Your task to perform on an android device: change the clock display to show seconds Image 0: 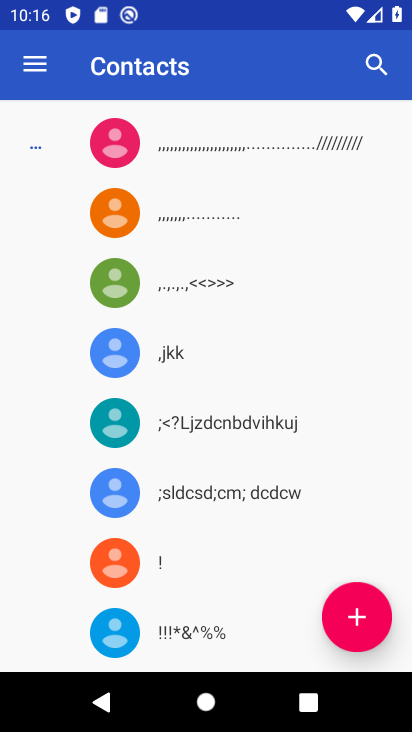
Step 0: press home button
Your task to perform on an android device: change the clock display to show seconds Image 1: 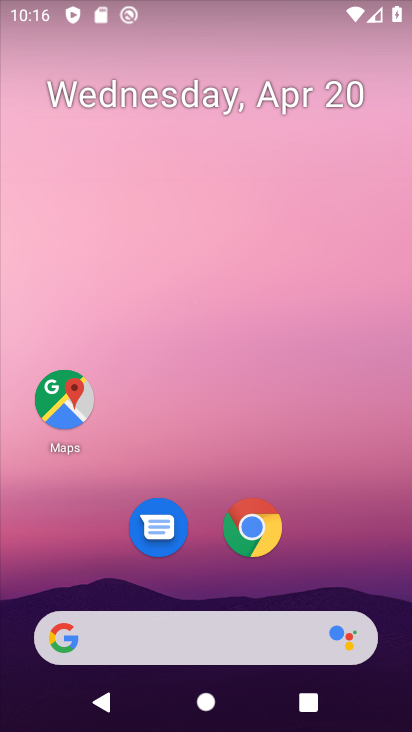
Step 1: drag from (202, 584) to (251, 4)
Your task to perform on an android device: change the clock display to show seconds Image 2: 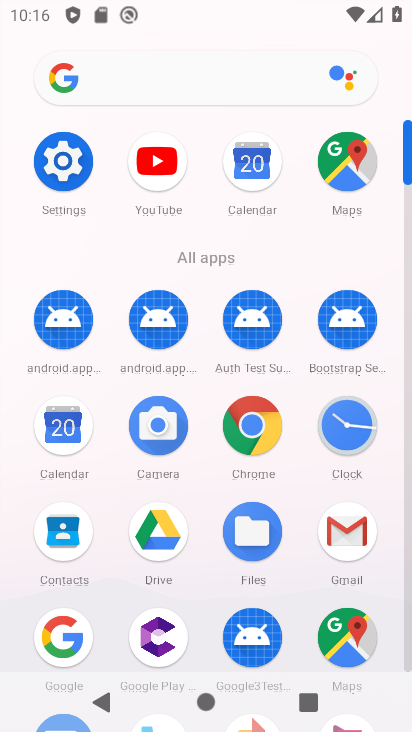
Step 2: click (349, 432)
Your task to perform on an android device: change the clock display to show seconds Image 3: 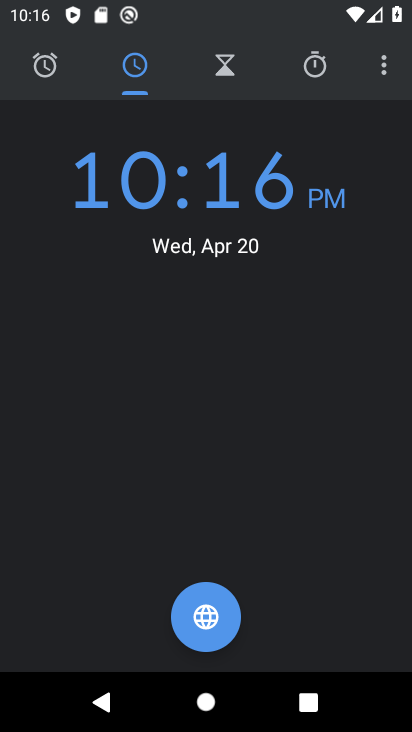
Step 3: click (385, 69)
Your task to perform on an android device: change the clock display to show seconds Image 4: 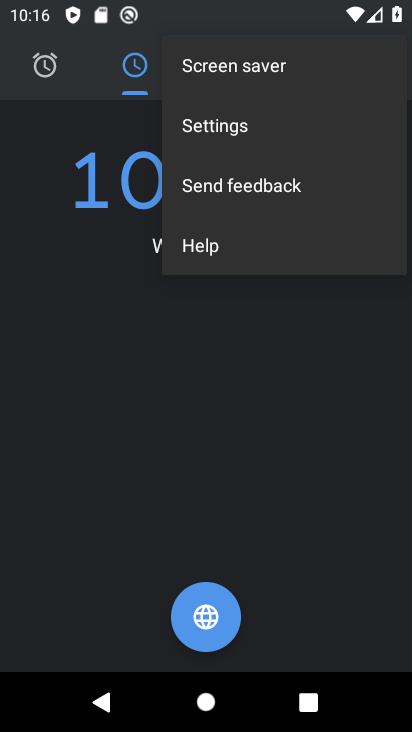
Step 4: click (228, 131)
Your task to perform on an android device: change the clock display to show seconds Image 5: 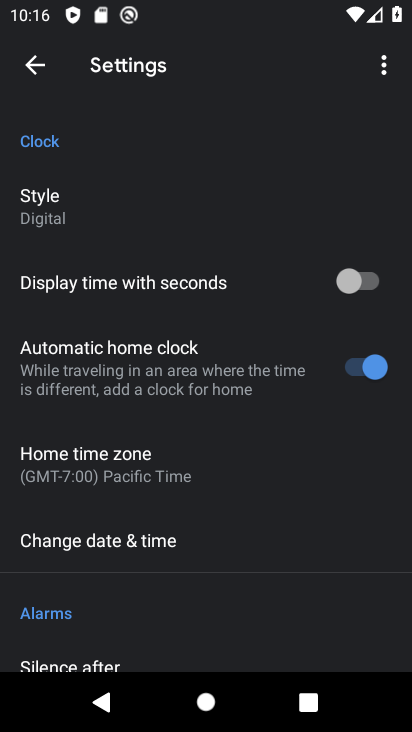
Step 5: click (51, 204)
Your task to perform on an android device: change the clock display to show seconds Image 6: 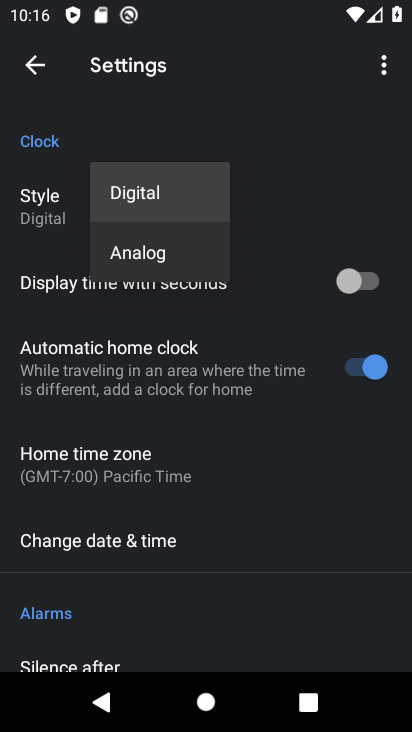
Step 6: click (130, 262)
Your task to perform on an android device: change the clock display to show seconds Image 7: 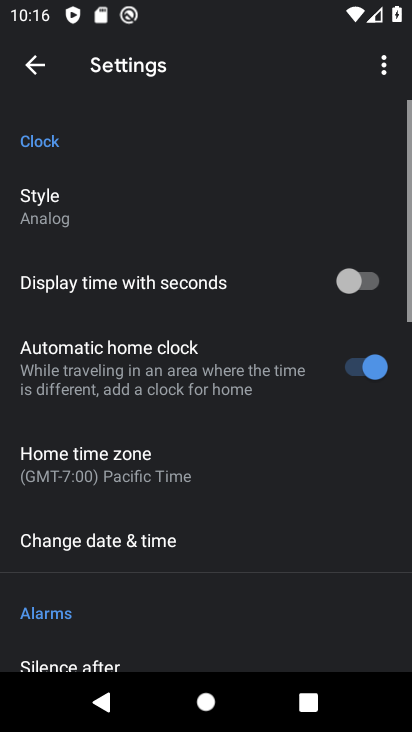
Step 7: click (369, 283)
Your task to perform on an android device: change the clock display to show seconds Image 8: 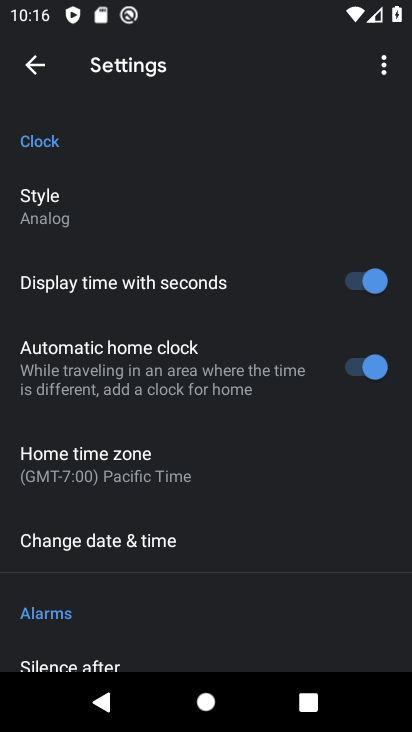
Step 8: task complete